Your task to perform on an android device: Go to Google Image 0: 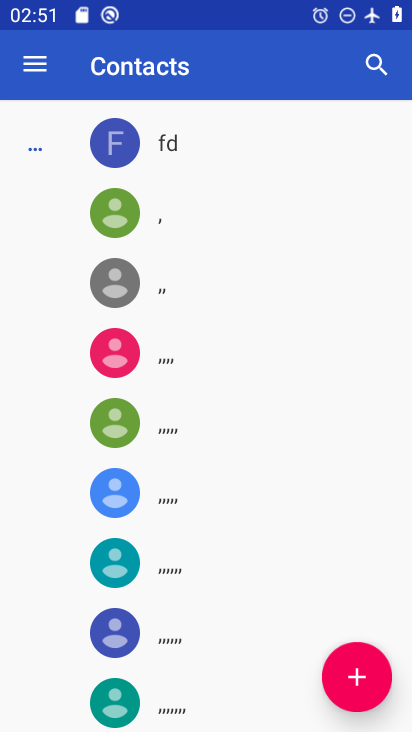
Step 0: press home button
Your task to perform on an android device: Go to Google Image 1: 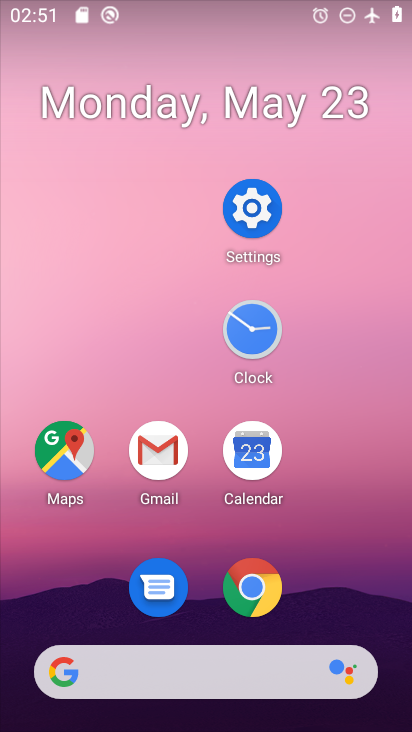
Step 1: click (265, 258)
Your task to perform on an android device: Go to Google Image 2: 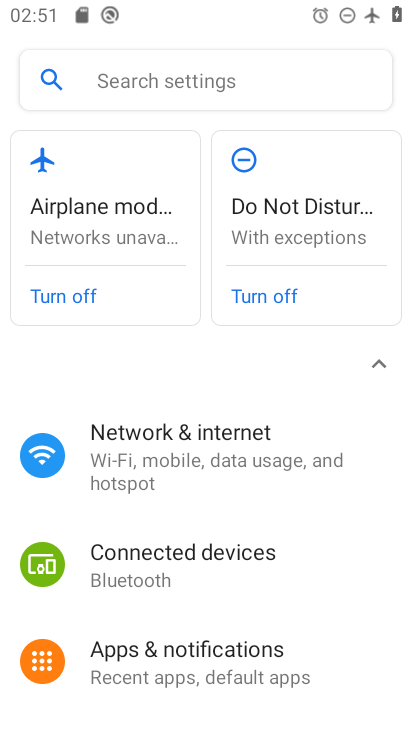
Step 2: click (215, 460)
Your task to perform on an android device: Go to Google Image 3: 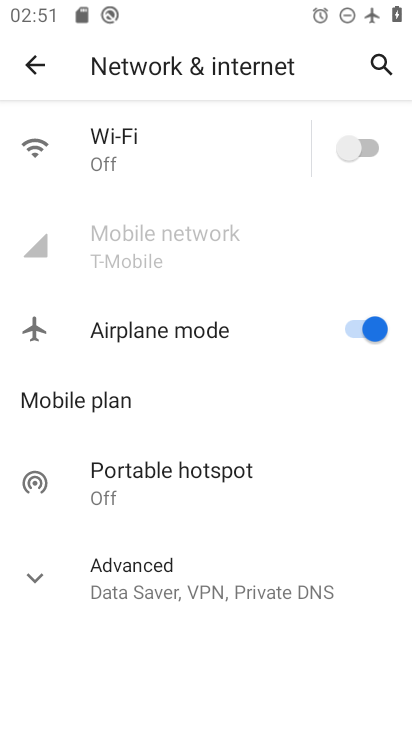
Step 3: press home button
Your task to perform on an android device: Go to Google Image 4: 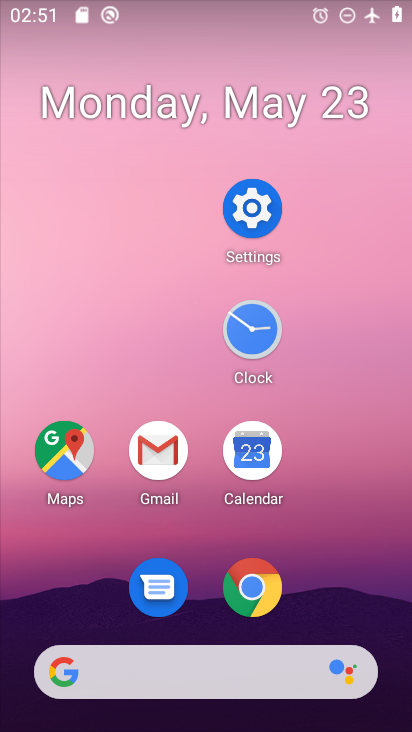
Step 4: click (254, 594)
Your task to perform on an android device: Go to Google Image 5: 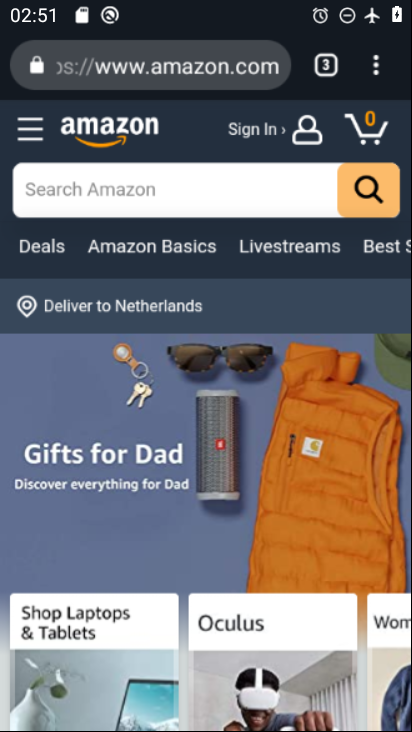
Step 5: click (214, 72)
Your task to perform on an android device: Go to Google Image 6: 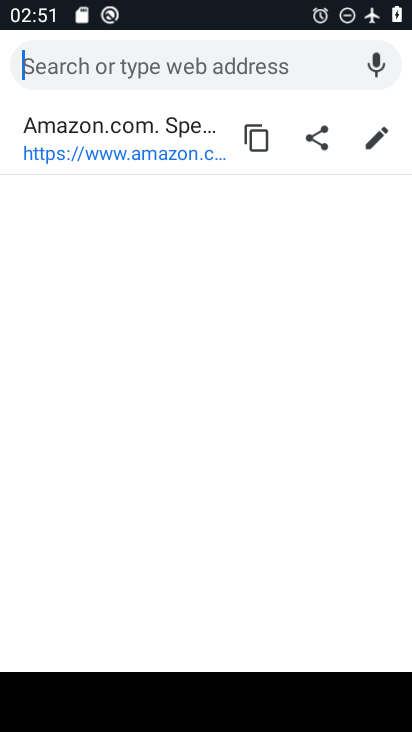
Step 6: type "google.com"
Your task to perform on an android device: Go to Google Image 7: 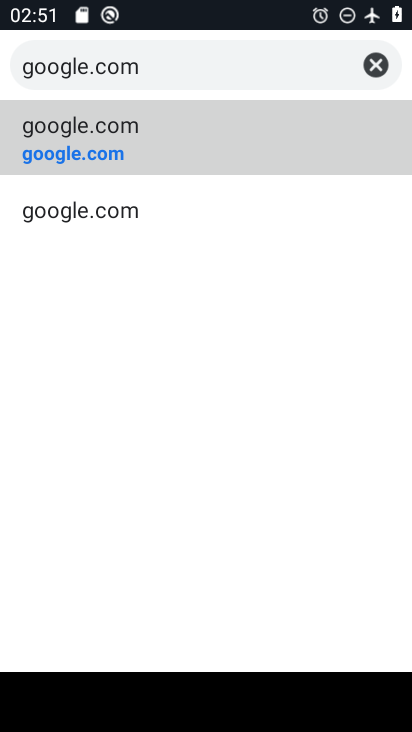
Step 7: click (221, 232)
Your task to perform on an android device: Go to Google Image 8: 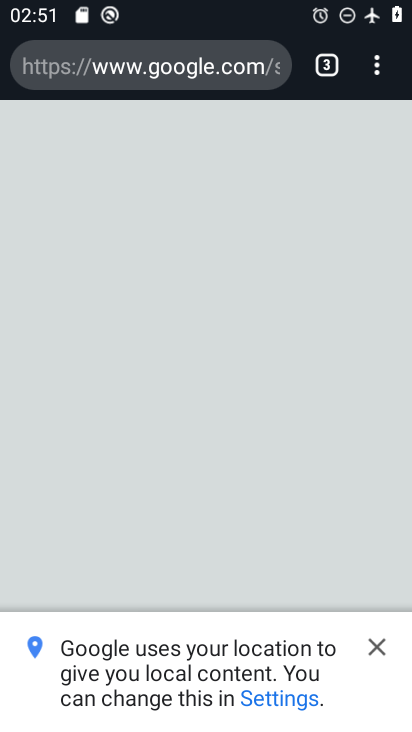
Step 8: task complete